Your task to perform on an android device: turn notification dots off Image 0: 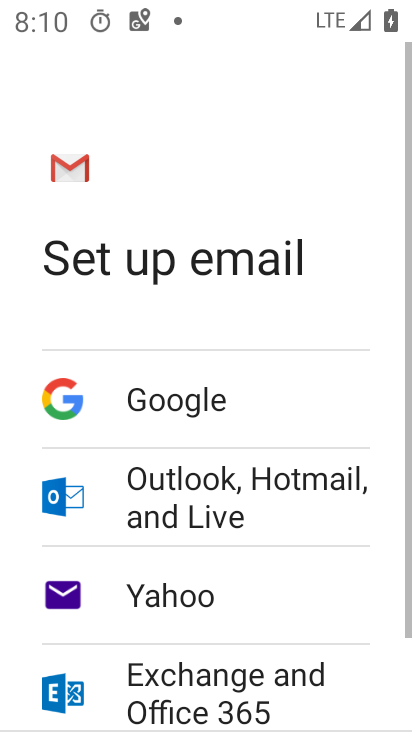
Step 0: press home button
Your task to perform on an android device: turn notification dots off Image 1: 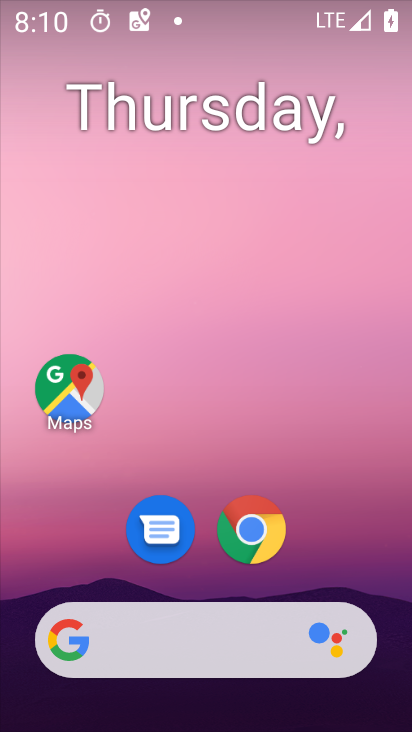
Step 1: drag from (382, 578) to (362, 191)
Your task to perform on an android device: turn notification dots off Image 2: 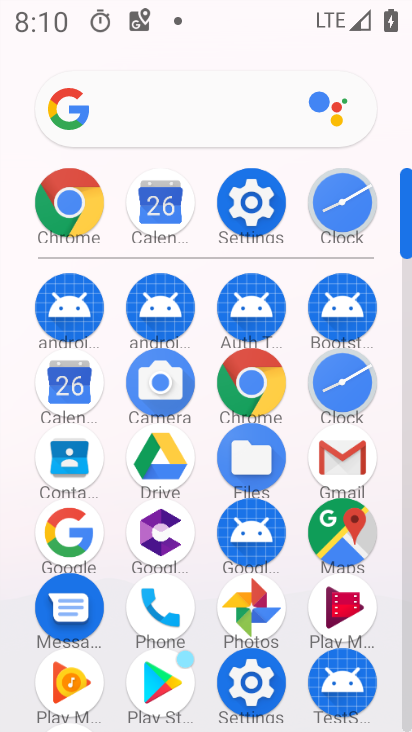
Step 2: click (258, 220)
Your task to perform on an android device: turn notification dots off Image 3: 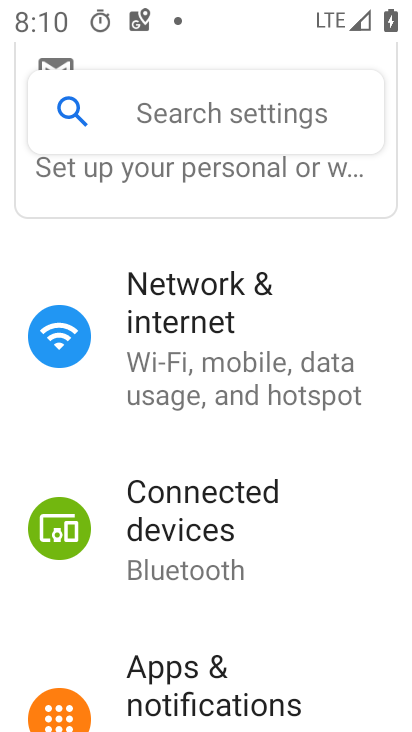
Step 3: drag from (353, 549) to (360, 468)
Your task to perform on an android device: turn notification dots off Image 4: 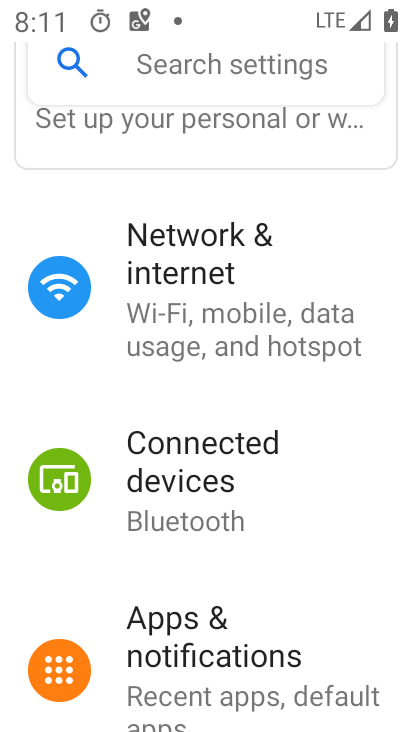
Step 4: drag from (363, 576) to (373, 457)
Your task to perform on an android device: turn notification dots off Image 5: 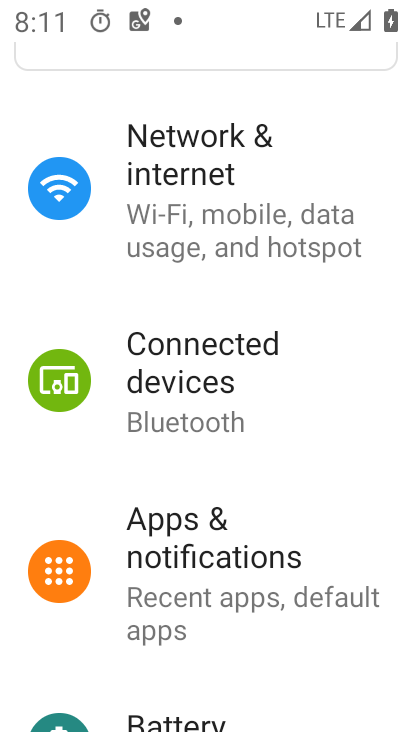
Step 5: drag from (373, 509) to (374, 411)
Your task to perform on an android device: turn notification dots off Image 6: 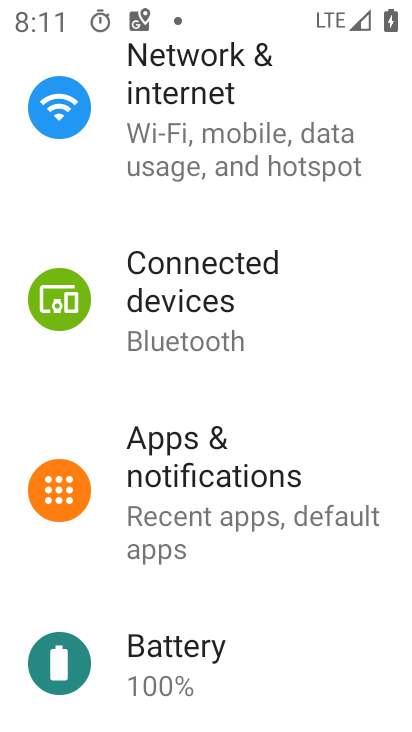
Step 6: drag from (369, 616) to (371, 503)
Your task to perform on an android device: turn notification dots off Image 7: 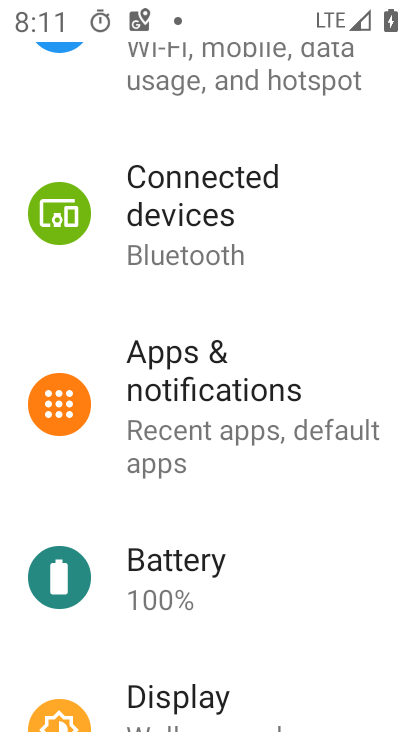
Step 7: drag from (371, 591) to (375, 503)
Your task to perform on an android device: turn notification dots off Image 8: 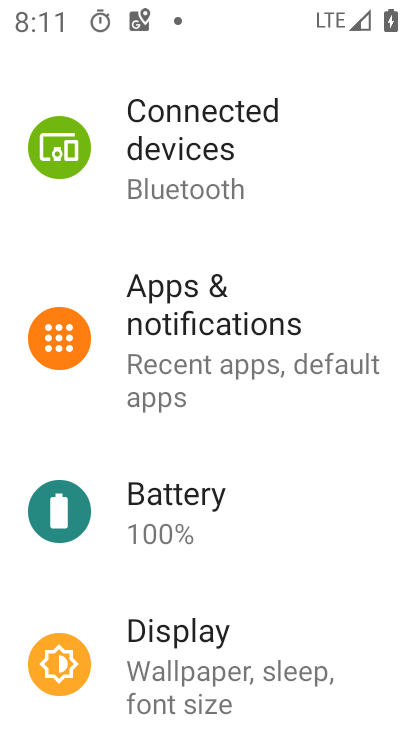
Step 8: click (304, 360)
Your task to perform on an android device: turn notification dots off Image 9: 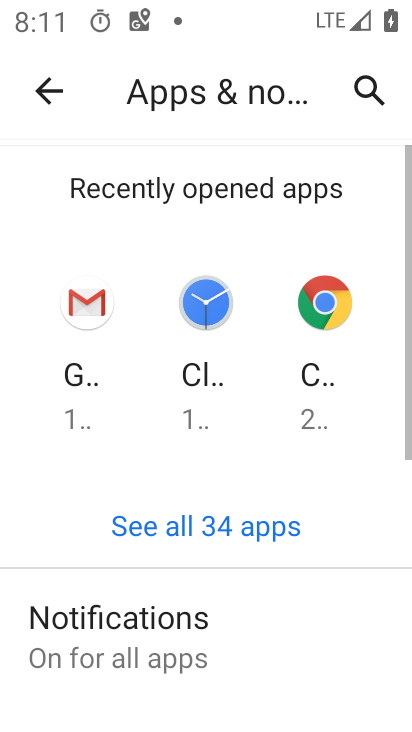
Step 9: drag from (344, 595) to (349, 493)
Your task to perform on an android device: turn notification dots off Image 10: 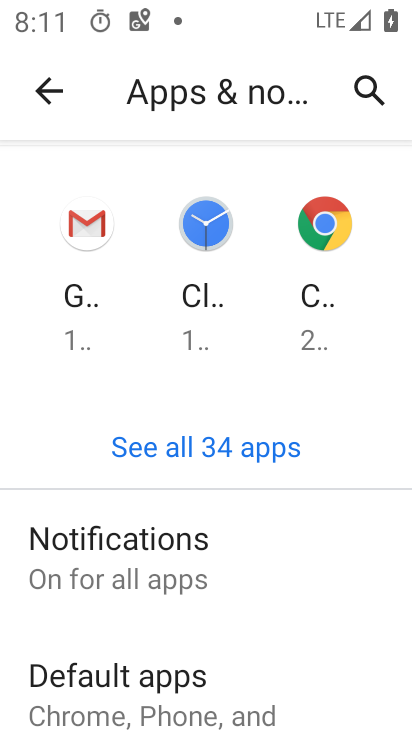
Step 10: drag from (373, 616) to (375, 507)
Your task to perform on an android device: turn notification dots off Image 11: 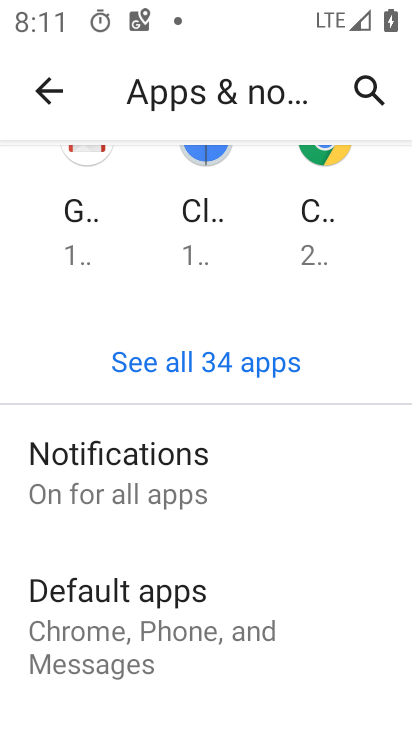
Step 11: click (198, 502)
Your task to perform on an android device: turn notification dots off Image 12: 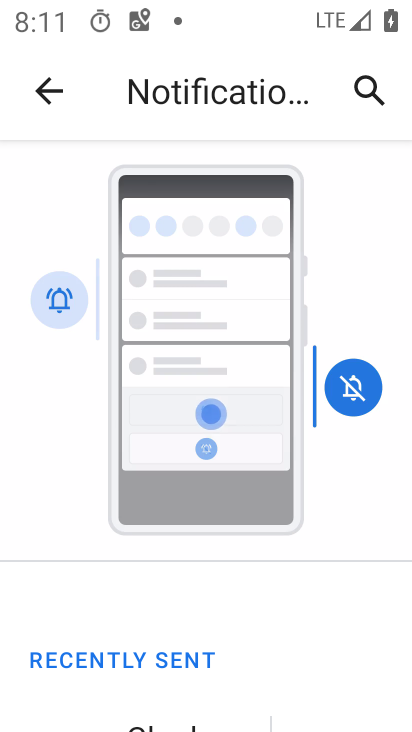
Step 12: drag from (337, 580) to (344, 468)
Your task to perform on an android device: turn notification dots off Image 13: 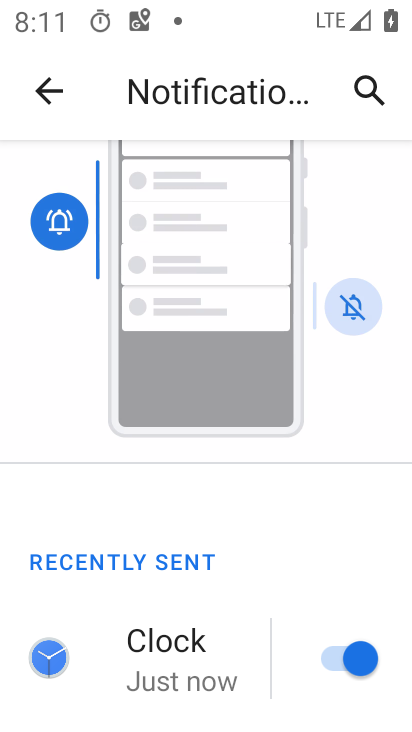
Step 13: drag from (298, 641) to (298, 486)
Your task to perform on an android device: turn notification dots off Image 14: 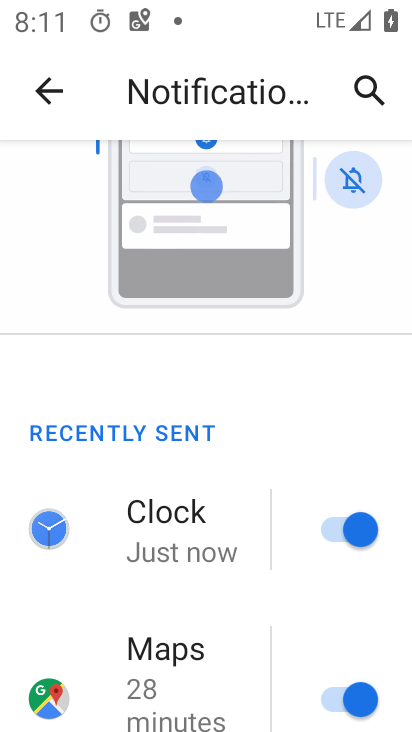
Step 14: drag from (295, 648) to (298, 540)
Your task to perform on an android device: turn notification dots off Image 15: 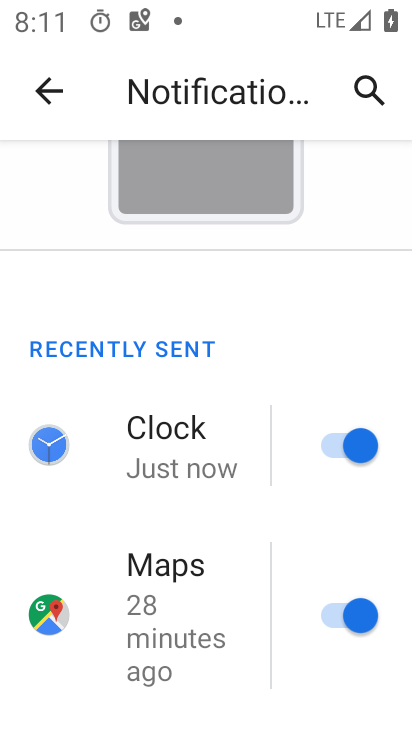
Step 15: drag from (298, 653) to (297, 517)
Your task to perform on an android device: turn notification dots off Image 16: 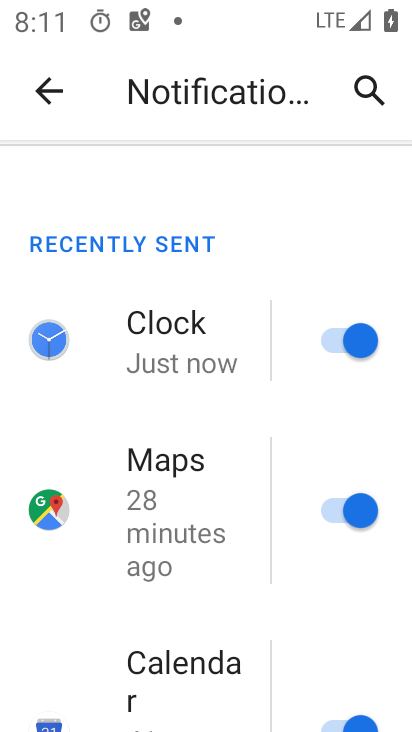
Step 16: drag from (286, 640) to (286, 529)
Your task to perform on an android device: turn notification dots off Image 17: 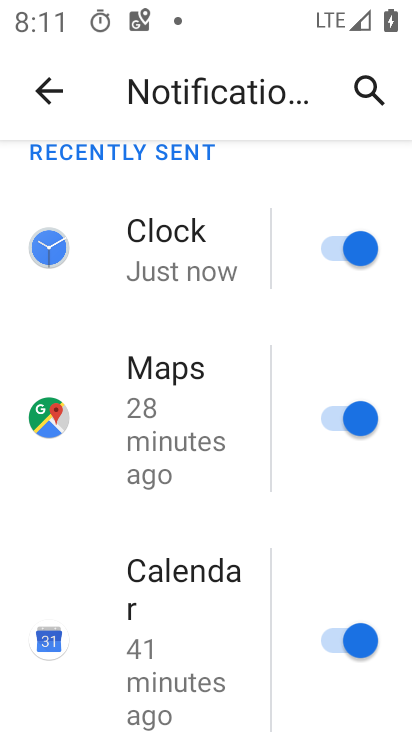
Step 17: drag from (273, 666) to (279, 536)
Your task to perform on an android device: turn notification dots off Image 18: 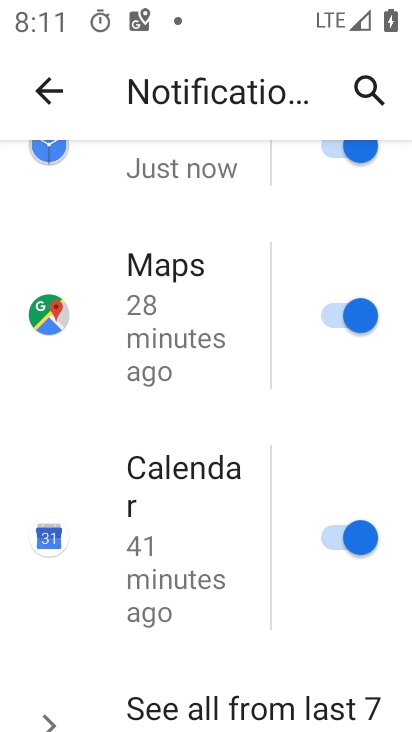
Step 18: drag from (296, 648) to (301, 510)
Your task to perform on an android device: turn notification dots off Image 19: 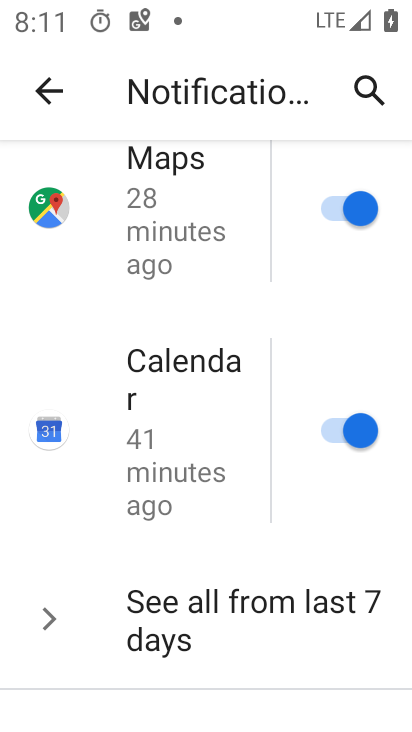
Step 19: drag from (298, 600) to (302, 483)
Your task to perform on an android device: turn notification dots off Image 20: 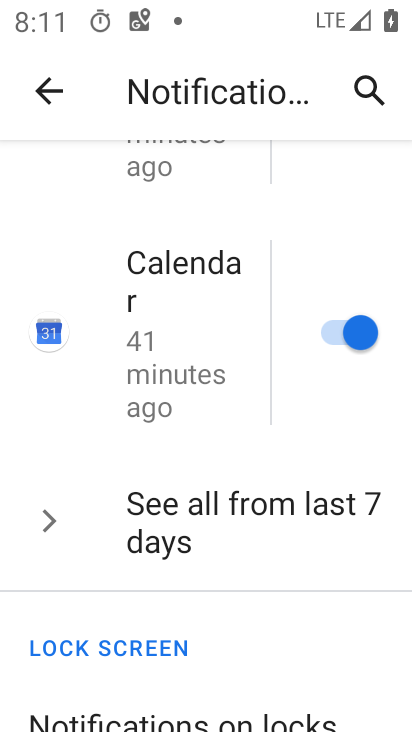
Step 20: drag from (280, 600) to (288, 465)
Your task to perform on an android device: turn notification dots off Image 21: 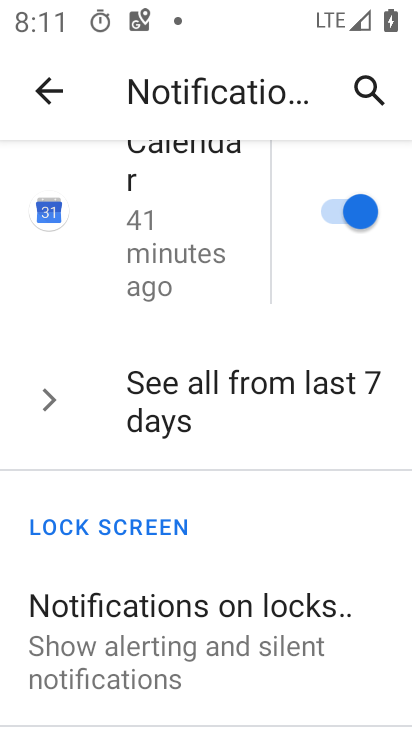
Step 21: drag from (208, 543) to (250, 319)
Your task to perform on an android device: turn notification dots off Image 22: 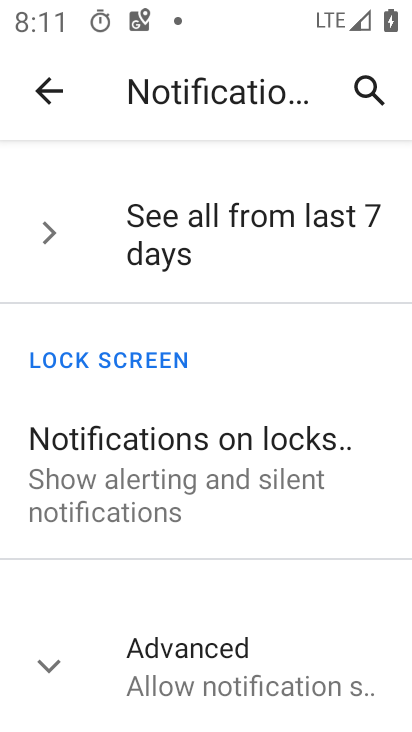
Step 22: click (270, 704)
Your task to perform on an android device: turn notification dots off Image 23: 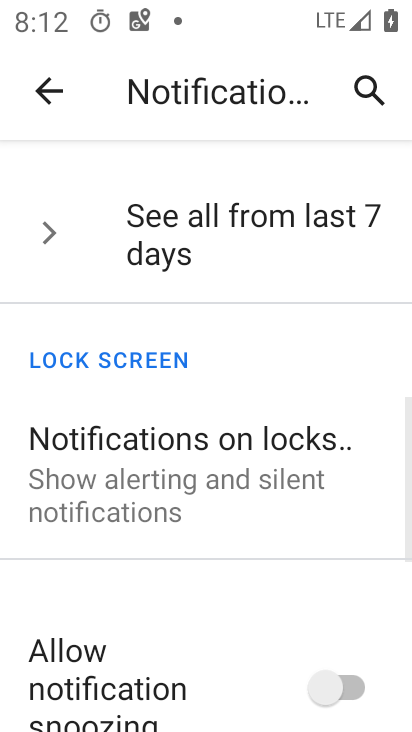
Step 23: drag from (244, 633) to (257, 462)
Your task to perform on an android device: turn notification dots off Image 24: 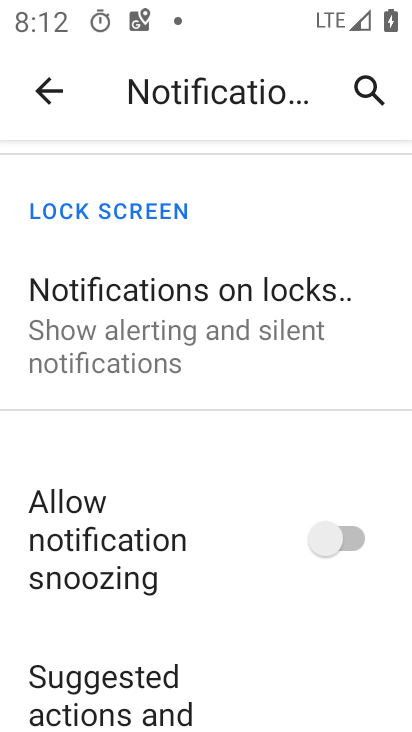
Step 24: drag from (275, 607) to (282, 491)
Your task to perform on an android device: turn notification dots off Image 25: 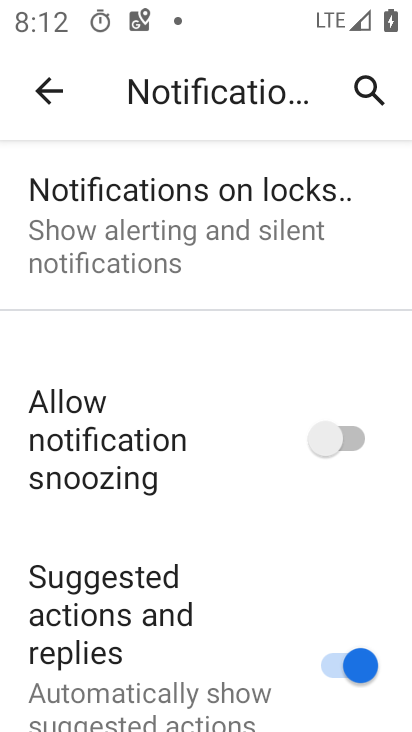
Step 25: drag from (273, 616) to (275, 489)
Your task to perform on an android device: turn notification dots off Image 26: 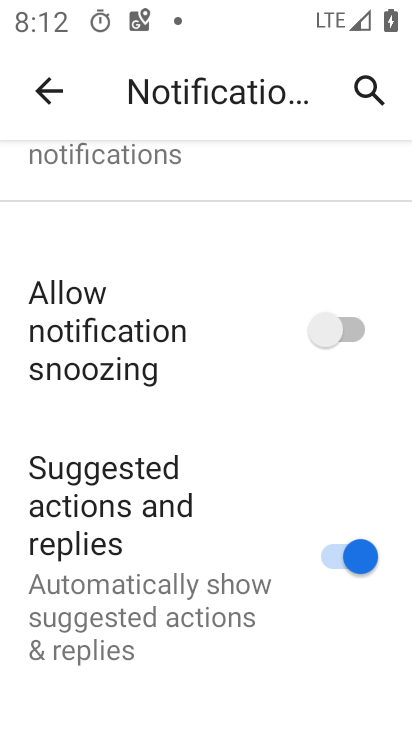
Step 26: drag from (272, 617) to (273, 501)
Your task to perform on an android device: turn notification dots off Image 27: 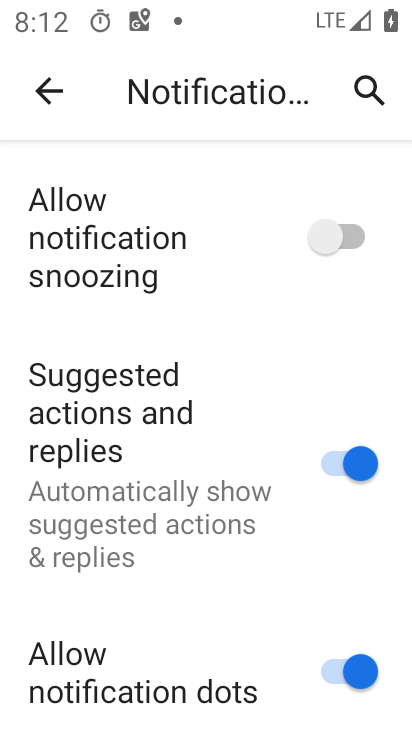
Step 27: drag from (277, 600) to (280, 532)
Your task to perform on an android device: turn notification dots off Image 28: 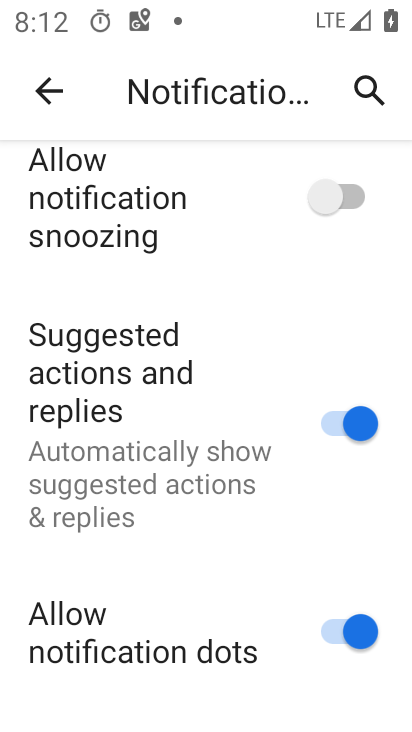
Step 28: drag from (308, 670) to (306, 554)
Your task to perform on an android device: turn notification dots off Image 29: 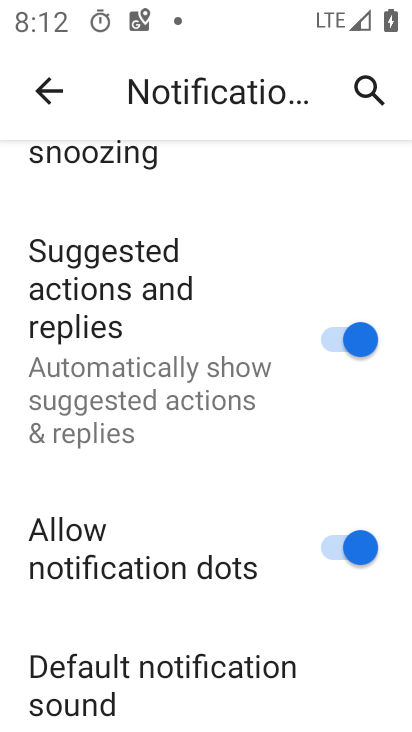
Step 29: drag from (309, 634) to (302, 499)
Your task to perform on an android device: turn notification dots off Image 30: 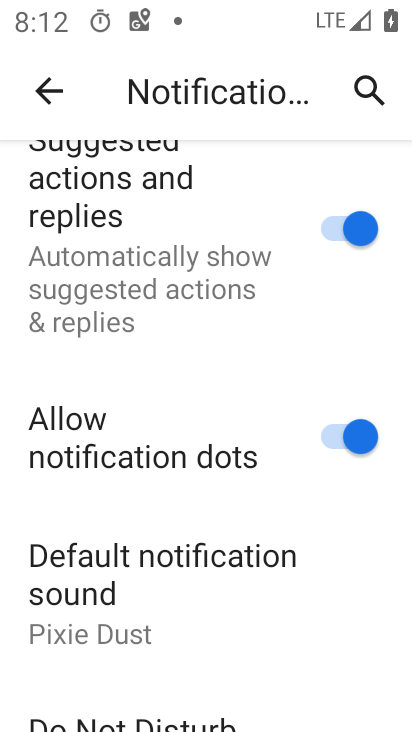
Step 30: click (355, 430)
Your task to perform on an android device: turn notification dots off Image 31: 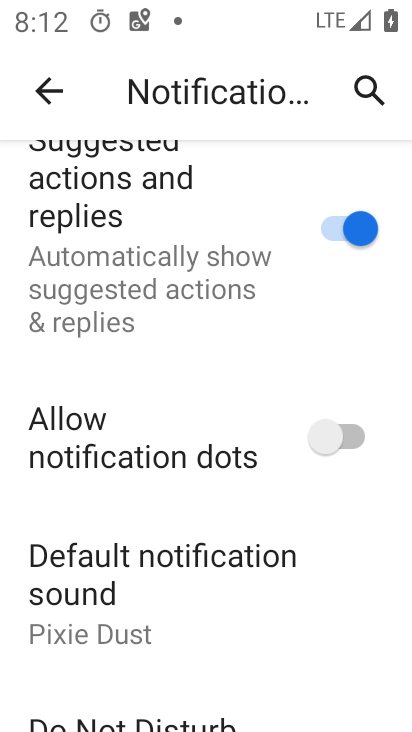
Step 31: task complete